Your task to perform on an android device: turn off priority inbox in the gmail app Image 0: 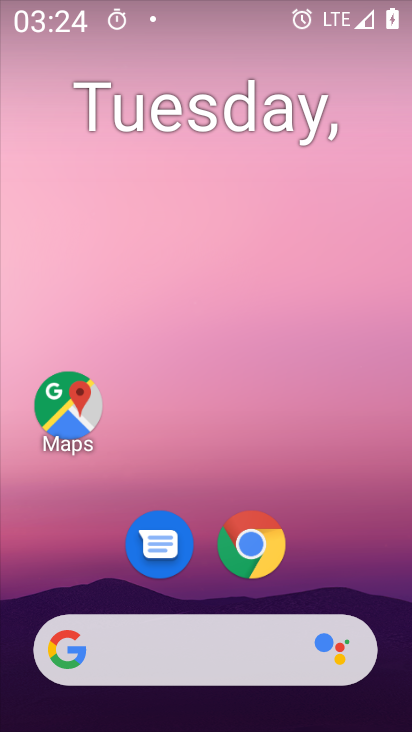
Step 0: drag from (353, 577) to (219, 42)
Your task to perform on an android device: turn off priority inbox in the gmail app Image 1: 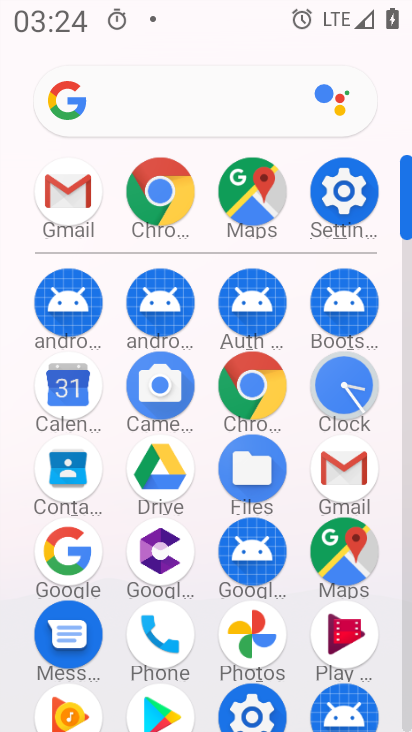
Step 1: drag from (14, 635) to (12, 263)
Your task to perform on an android device: turn off priority inbox in the gmail app Image 2: 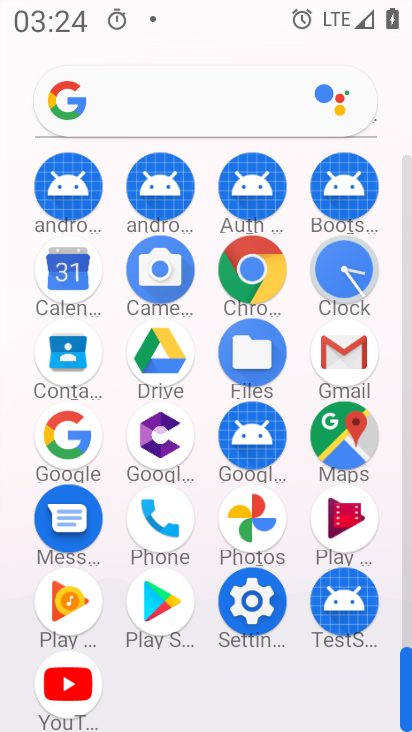
Step 2: click (341, 340)
Your task to perform on an android device: turn off priority inbox in the gmail app Image 3: 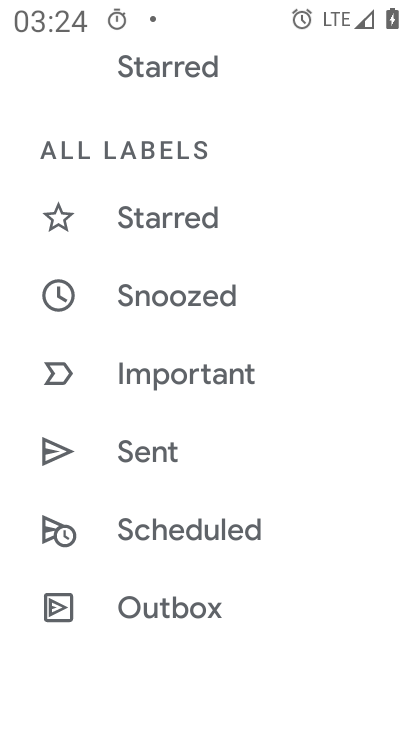
Step 3: drag from (260, 494) to (258, 119)
Your task to perform on an android device: turn off priority inbox in the gmail app Image 4: 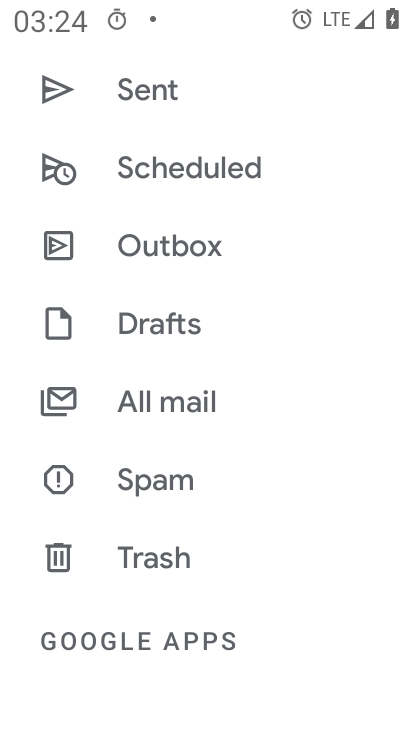
Step 4: drag from (236, 534) to (236, 168)
Your task to perform on an android device: turn off priority inbox in the gmail app Image 5: 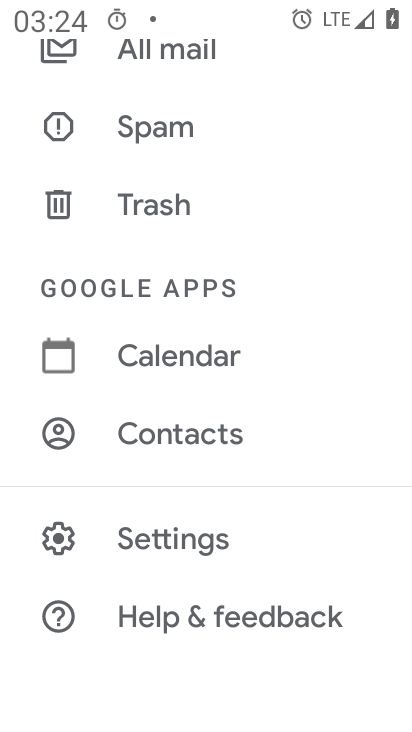
Step 5: click (166, 538)
Your task to perform on an android device: turn off priority inbox in the gmail app Image 6: 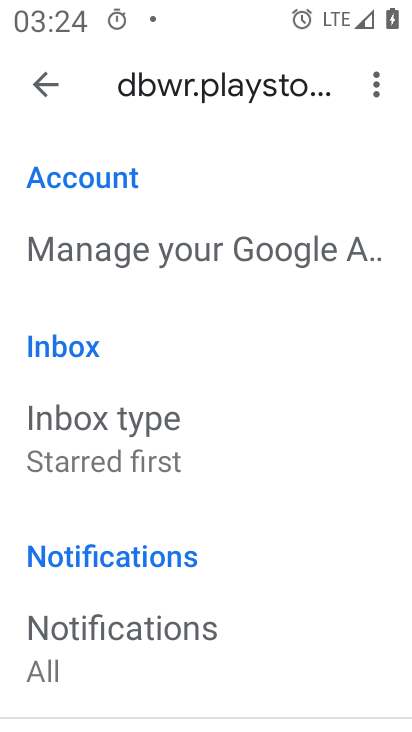
Step 6: drag from (276, 605) to (268, 233)
Your task to perform on an android device: turn off priority inbox in the gmail app Image 7: 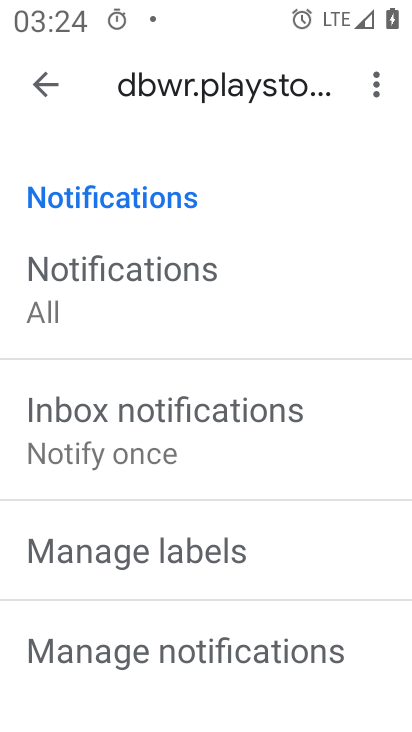
Step 7: drag from (267, 534) to (305, 161)
Your task to perform on an android device: turn off priority inbox in the gmail app Image 8: 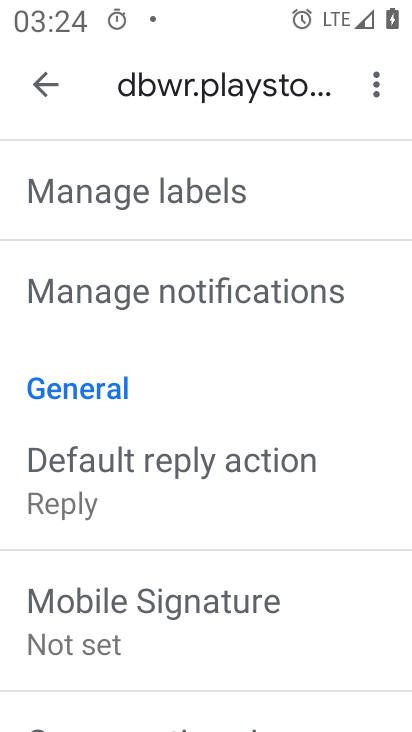
Step 8: drag from (285, 554) to (291, 156)
Your task to perform on an android device: turn off priority inbox in the gmail app Image 9: 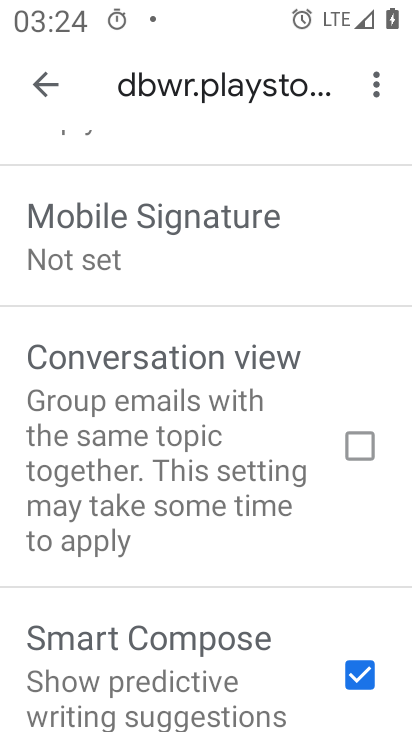
Step 9: drag from (201, 624) to (241, 255)
Your task to perform on an android device: turn off priority inbox in the gmail app Image 10: 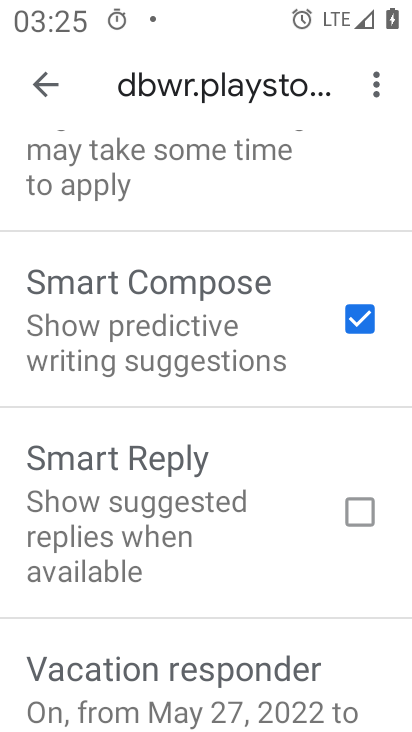
Step 10: drag from (229, 550) to (254, 226)
Your task to perform on an android device: turn off priority inbox in the gmail app Image 11: 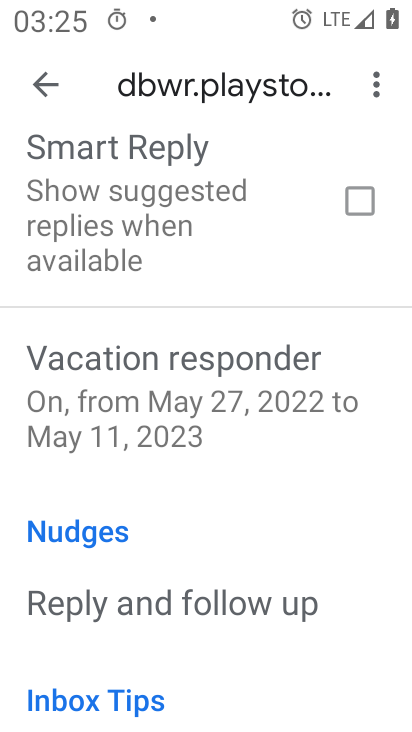
Step 11: drag from (185, 184) to (196, 653)
Your task to perform on an android device: turn off priority inbox in the gmail app Image 12: 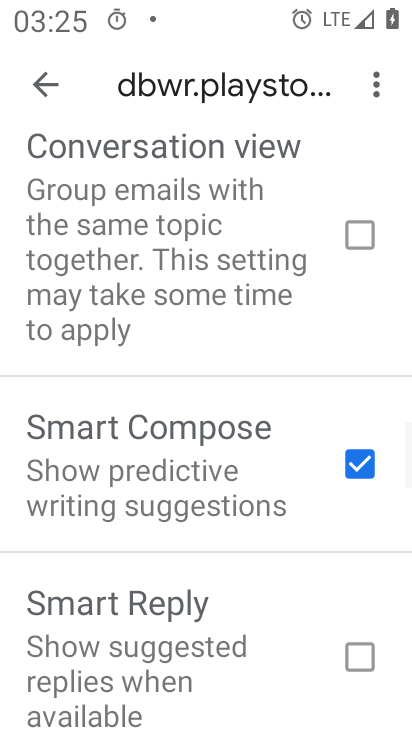
Step 12: drag from (184, 303) to (204, 684)
Your task to perform on an android device: turn off priority inbox in the gmail app Image 13: 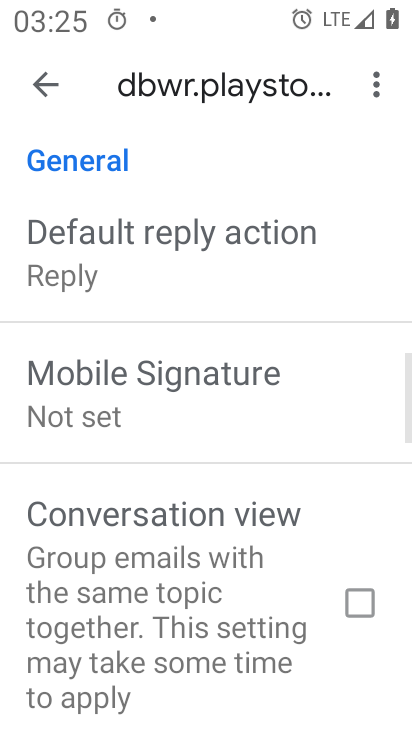
Step 13: drag from (185, 265) to (191, 636)
Your task to perform on an android device: turn off priority inbox in the gmail app Image 14: 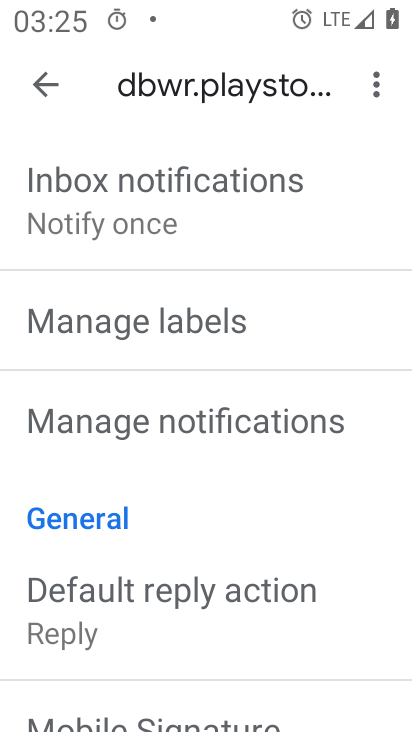
Step 14: drag from (194, 283) to (195, 616)
Your task to perform on an android device: turn off priority inbox in the gmail app Image 15: 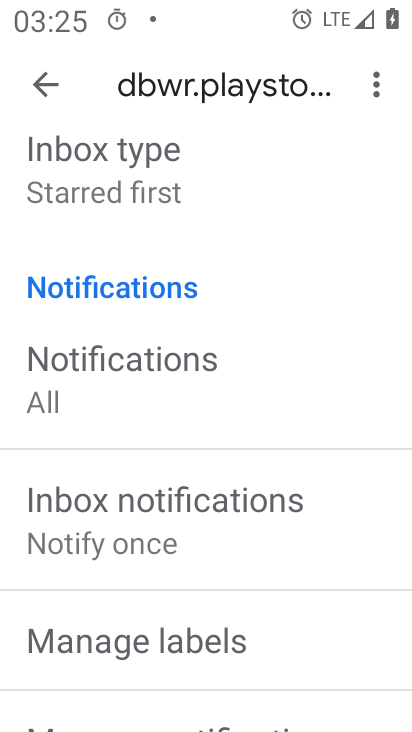
Step 15: drag from (259, 263) to (269, 584)
Your task to perform on an android device: turn off priority inbox in the gmail app Image 16: 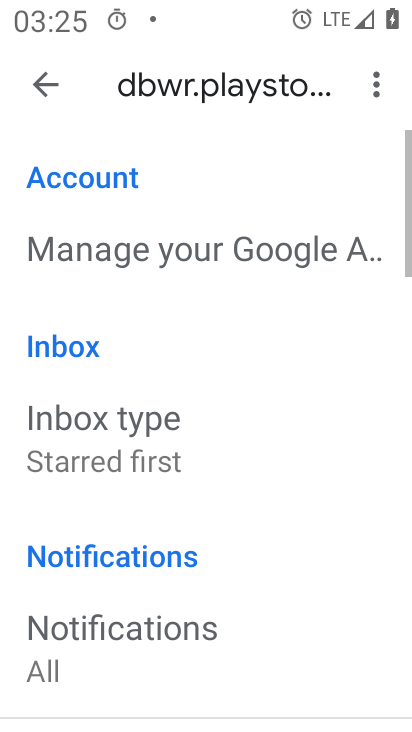
Step 16: drag from (258, 562) to (250, 336)
Your task to perform on an android device: turn off priority inbox in the gmail app Image 17: 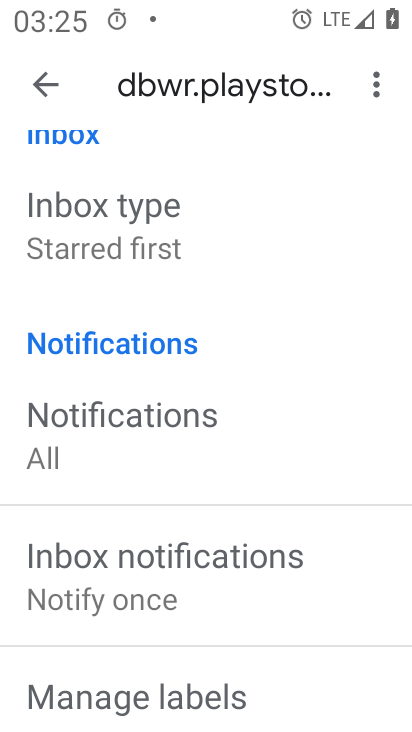
Step 17: click (172, 220)
Your task to perform on an android device: turn off priority inbox in the gmail app Image 18: 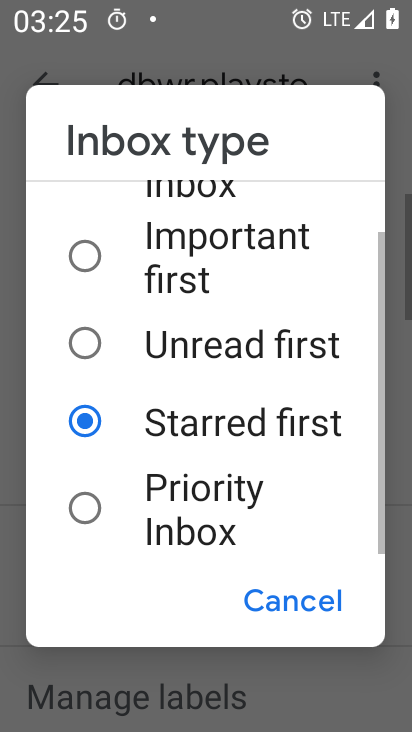
Step 18: click (177, 497)
Your task to perform on an android device: turn off priority inbox in the gmail app Image 19: 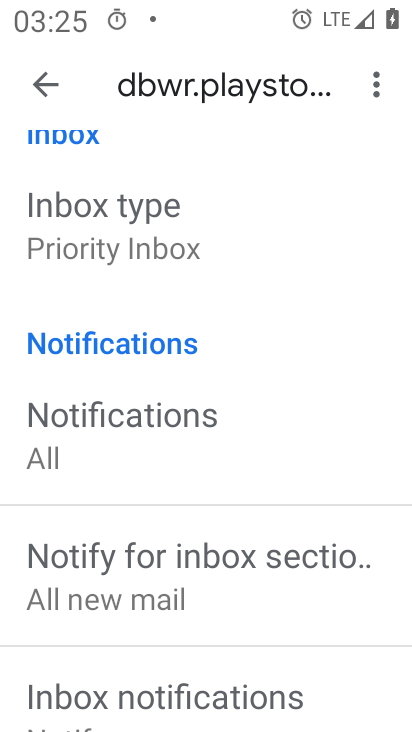
Step 19: drag from (282, 532) to (264, 159)
Your task to perform on an android device: turn off priority inbox in the gmail app Image 20: 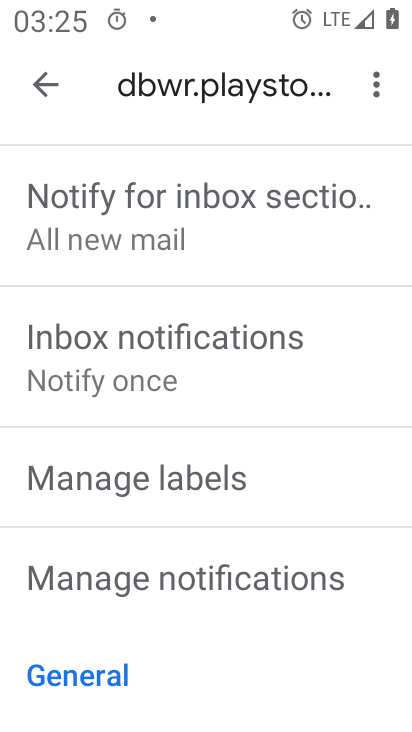
Step 20: drag from (272, 577) to (274, 197)
Your task to perform on an android device: turn off priority inbox in the gmail app Image 21: 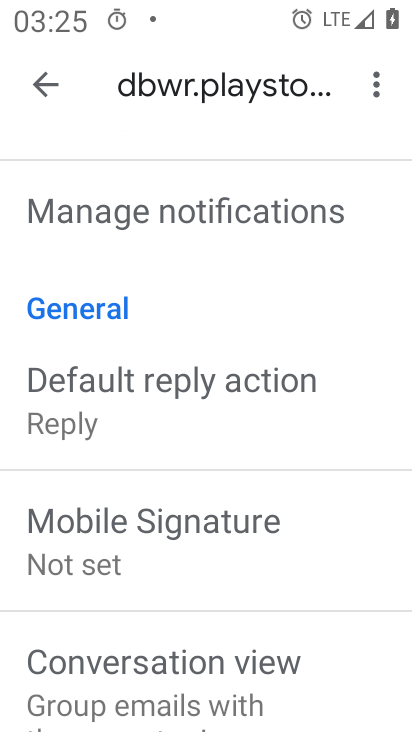
Step 21: drag from (267, 606) to (257, 186)
Your task to perform on an android device: turn off priority inbox in the gmail app Image 22: 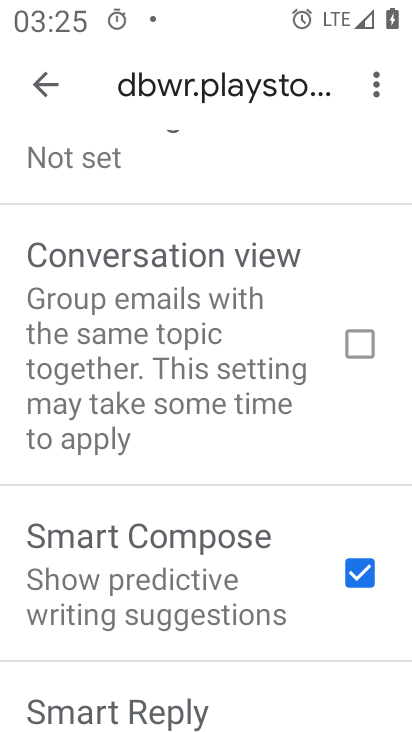
Step 22: drag from (245, 637) to (263, 219)
Your task to perform on an android device: turn off priority inbox in the gmail app Image 23: 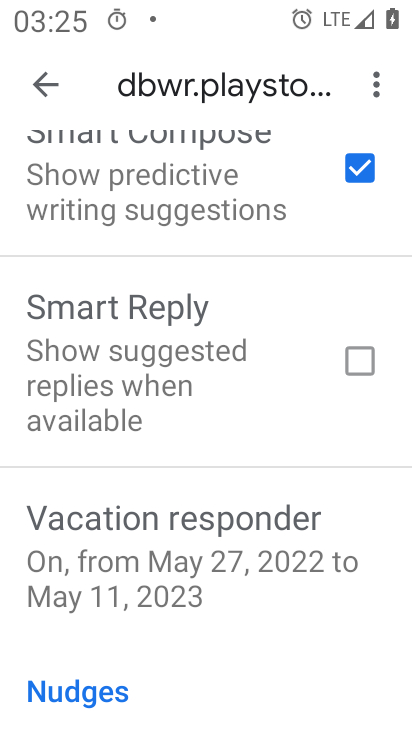
Step 23: drag from (242, 609) to (233, 186)
Your task to perform on an android device: turn off priority inbox in the gmail app Image 24: 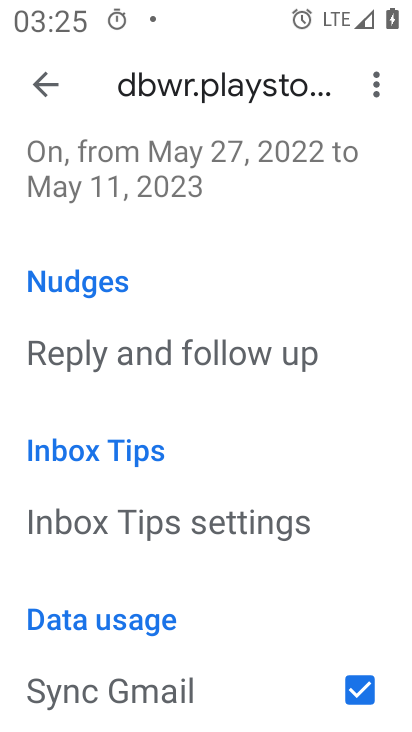
Step 24: drag from (266, 554) to (256, 192)
Your task to perform on an android device: turn off priority inbox in the gmail app Image 25: 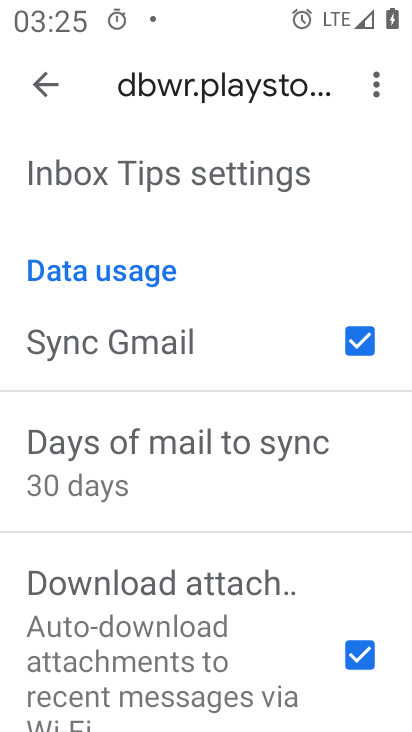
Step 25: drag from (248, 186) to (236, 604)
Your task to perform on an android device: turn off priority inbox in the gmail app Image 26: 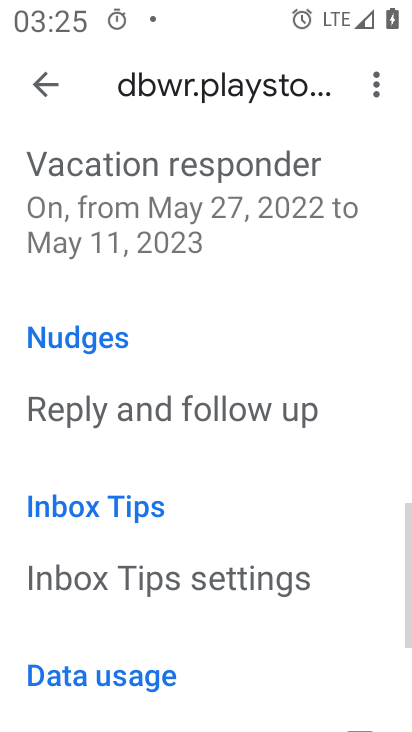
Step 26: drag from (205, 173) to (218, 644)
Your task to perform on an android device: turn off priority inbox in the gmail app Image 27: 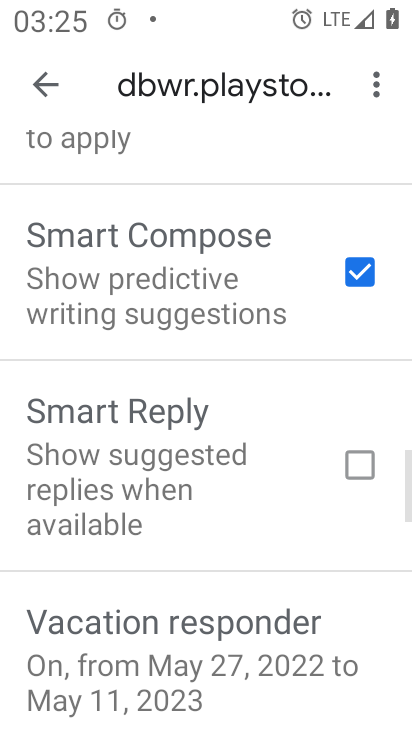
Step 27: drag from (201, 224) to (199, 595)
Your task to perform on an android device: turn off priority inbox in the gmail app Image 28: 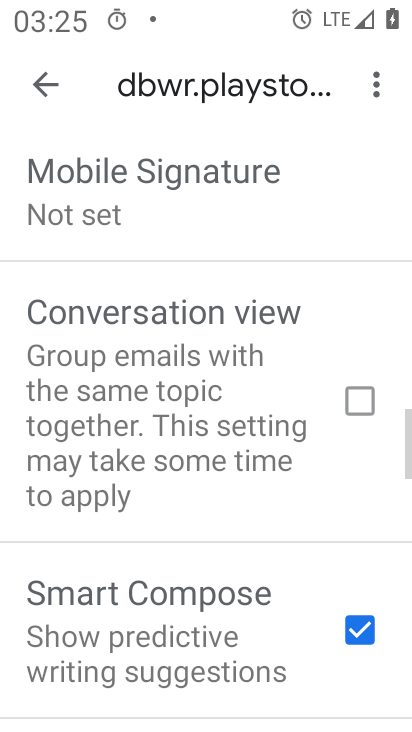
Step 28: drag from (176, 231) to (170, 573)
Your task to perform on an android device: turn off priority inbox in the gmail app Image 29: 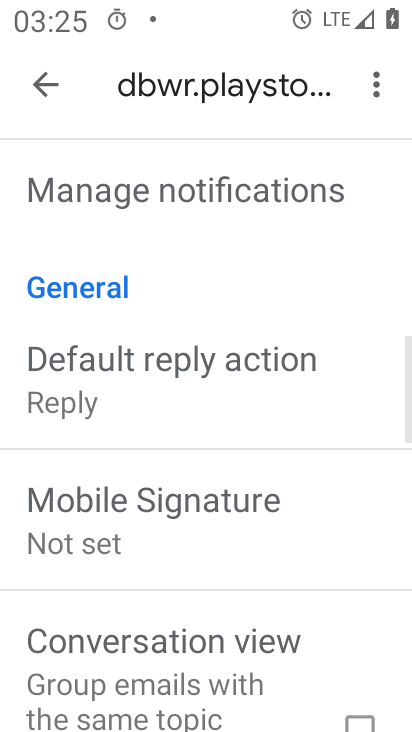
Step 29: drag from (176, 261) to (201, 624)
Your task to perform on an android device: turn off priority inbox in the gmail app Image 30: 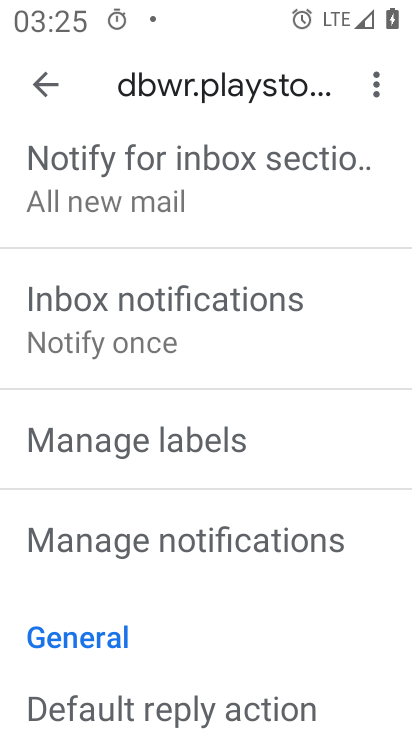
Step 30: drag from (211, 265) to (223, 617)
Your task to perform on an android device: turn off priority inbox in the gmail app Image 31: 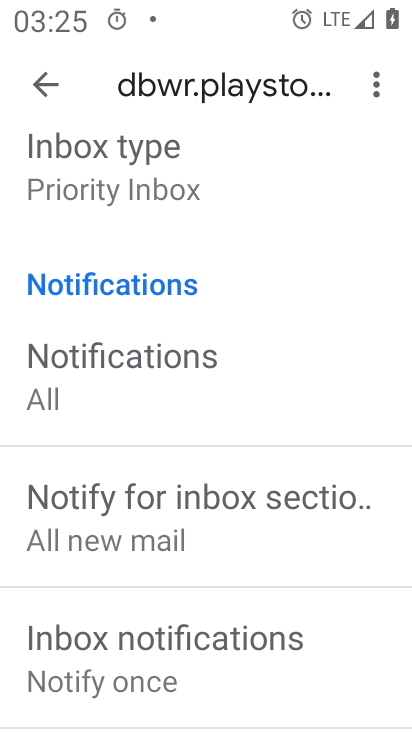
Step 31: drag from (231, 244) to (227, 468)
Your task to perform on an android device: turn off priority inbox in the gmail app Image 32: 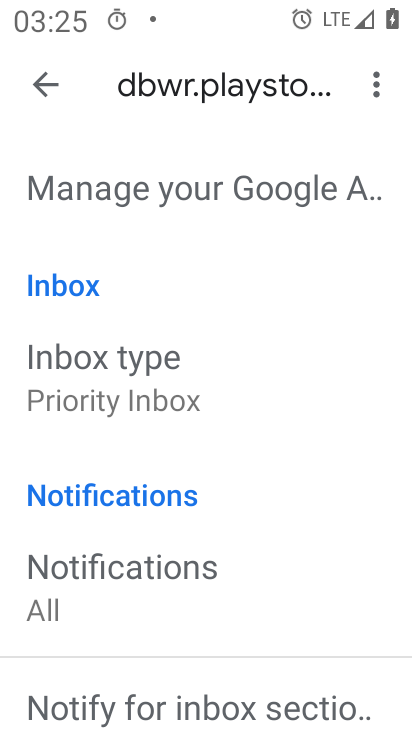
Step 32: click (187, 401)
Your task to perform on an android device: turn off priority inbox in the gmail app Image 33: 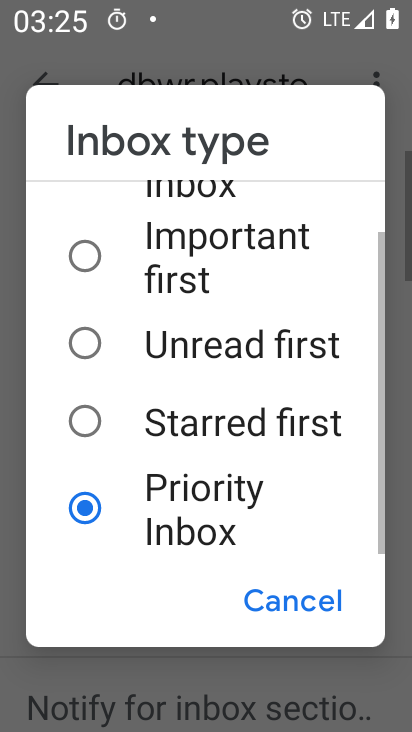
Step 33: drag from (235, 226) to (230, 497)
Your task to perform on an android device: turn off priority inbox in the gmail app Image 34: 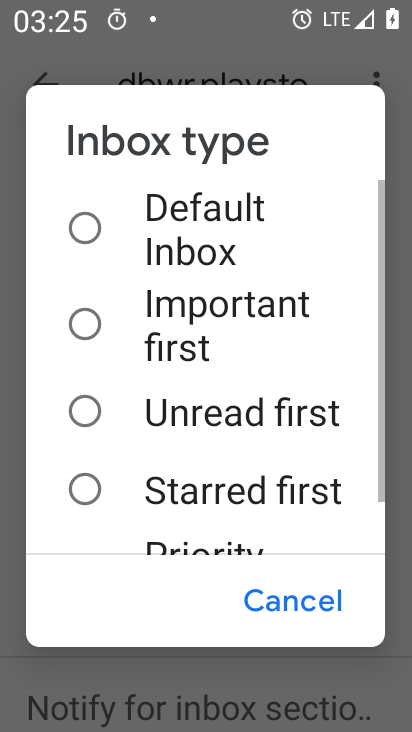
Step 34: click (183, 222)
Your task to perform on an android device: turn off priority inbox in the gmail app Image 35: 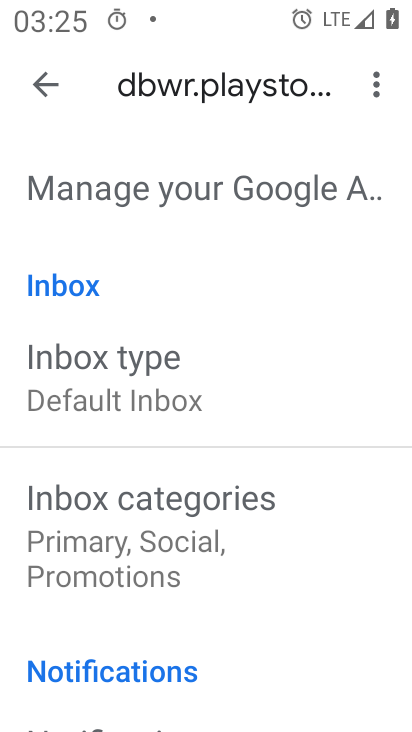
Step 35: task complete